Your task to perform on an android device: open chrome and create a bookmark for the current page Image 0: 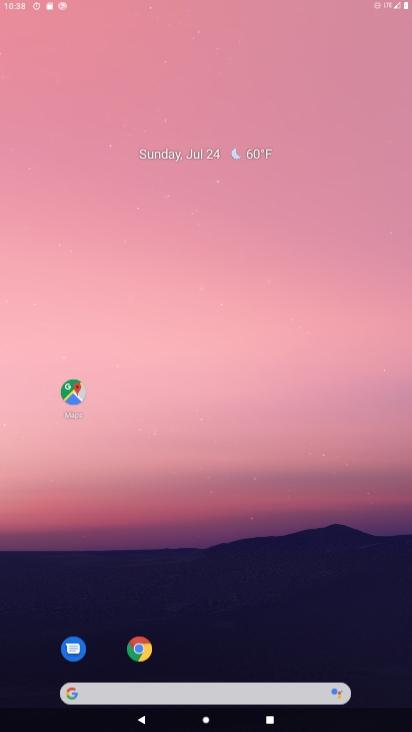
Step 0: drag from (297, 520) to (132, 8)
Your task to perform on an android device: open chrome and create a bookmark for the current page Image 1: 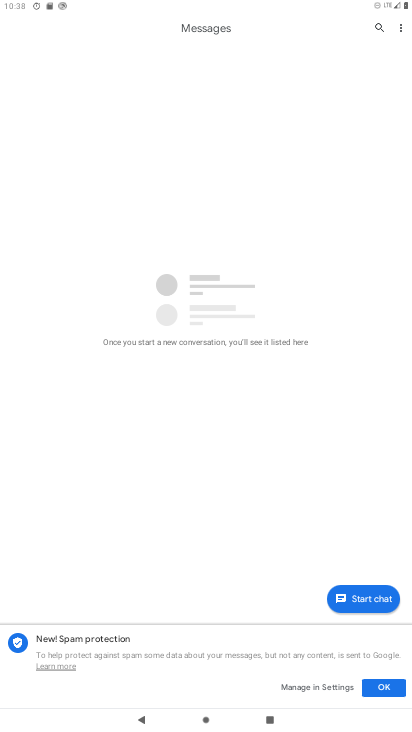
Step 1: press home button
Your task to perform on an android device: open chrome and create a bookmark for the current page Image 2: 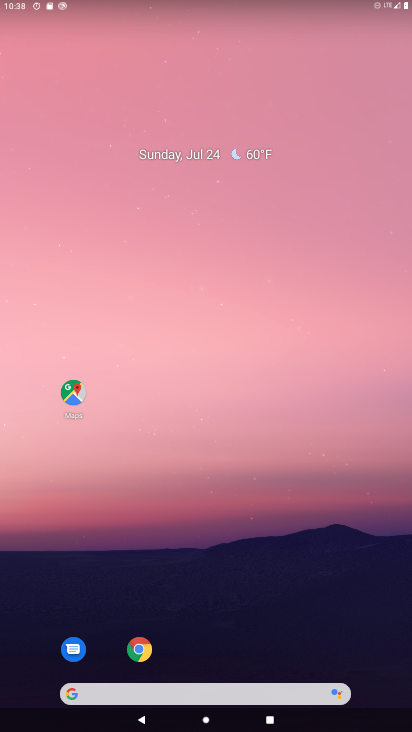
Step 2: click (315, 417)
Your task to perform on an android device: open chrome and create a bookmark for the current page Image 3: 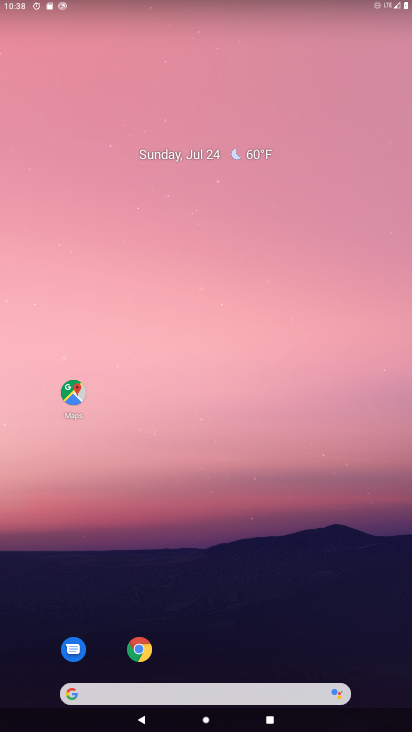
Step 3: drag from (343, 575) to (279, 131)
Your task to perform on an android device: open chrome and create a bookmark for the current page Image 4: 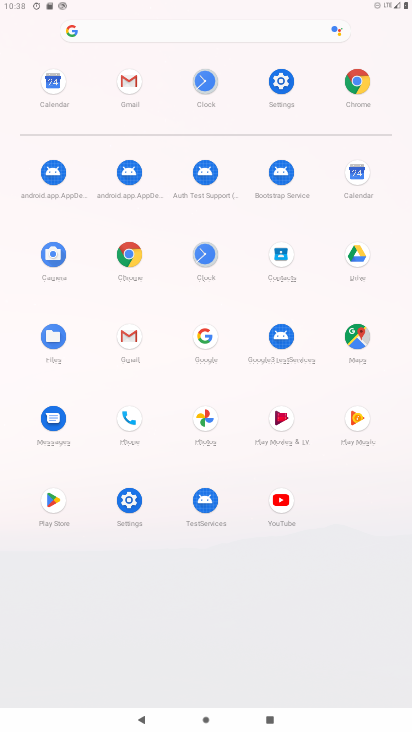
Step 4: click (352, 85)
Your task to perform on an android device: open chrome and create a bookmark for the current page Image 5: 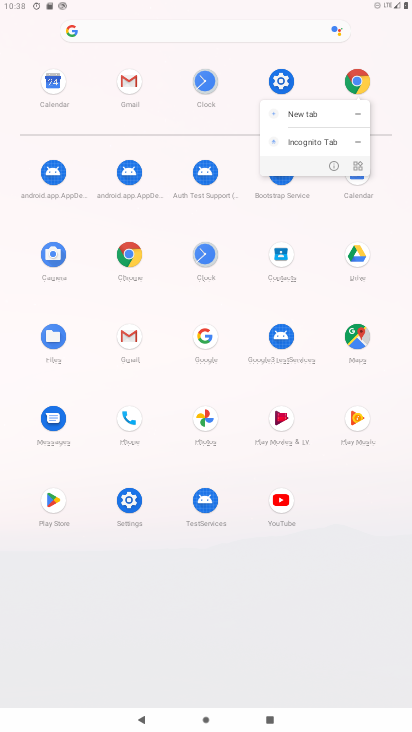
Step 5: click (354, 84)
Your task to perform on an android device: open chrome and create a bookmark for the current page Image 6: 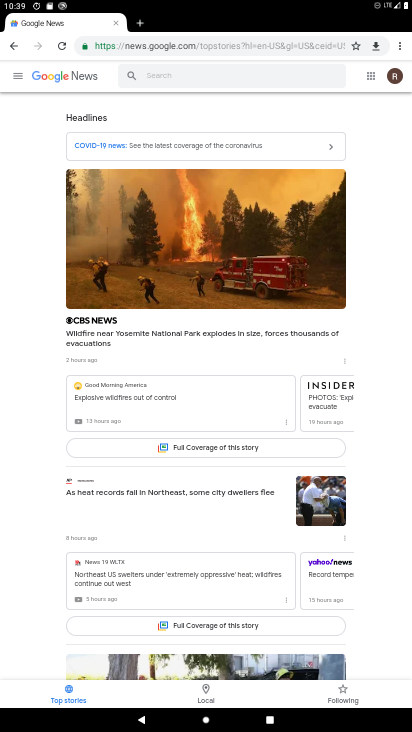
Step 6: drag from (403, 42) to (402, 172)
Your task to perform on an android device: open chrome and create a bookmark for the current page Image 7: 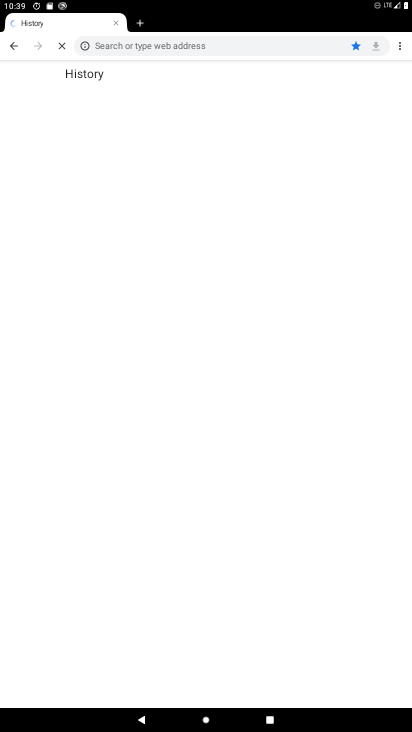
Step 7: click (220, 20)
Your task to perform on an android device: open chrome and create a bookmark for the current page Image 8: 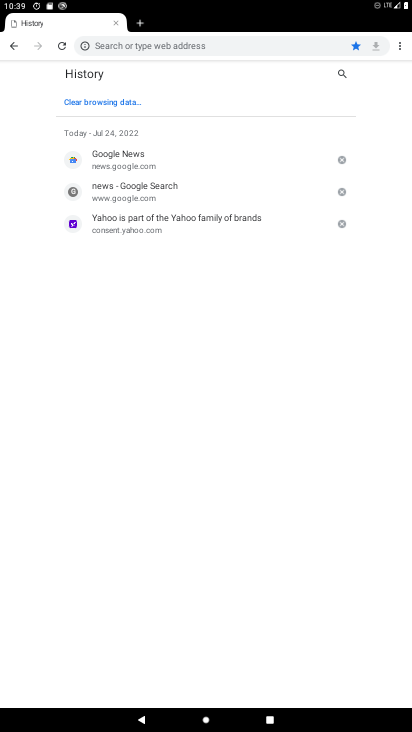
Step 8: click (13, 49)
Your task to perform on an android device: open chrome and create a bookmark for the current page Image 9: 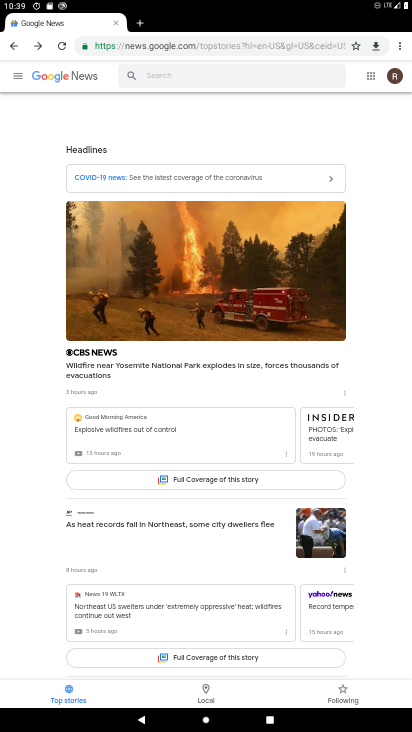
Step 9: click (349, 47)
Your task to perform on an android device: open chrome and create a bookmark for the current page Image 10: 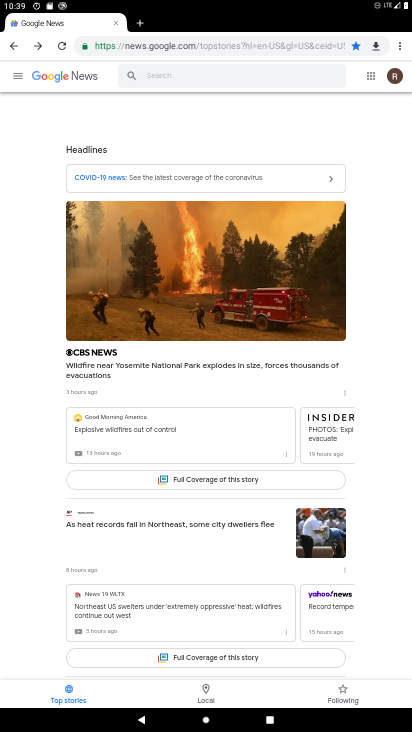
Step 10: task complete